Your task to perform on an android device: open app "Pinterest" (install if not already installed) and go to login screen Image 0: 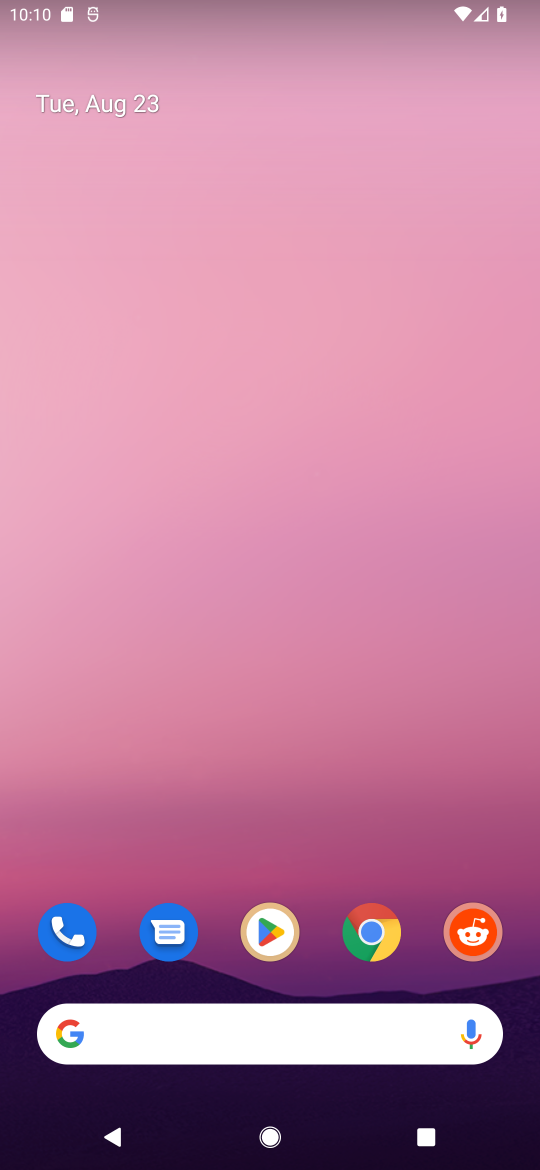
Step 0: click (260, 934)
Your task to perform on an android device: open app "Pinterest" (install if not already installed) and go to login screen Image 1: 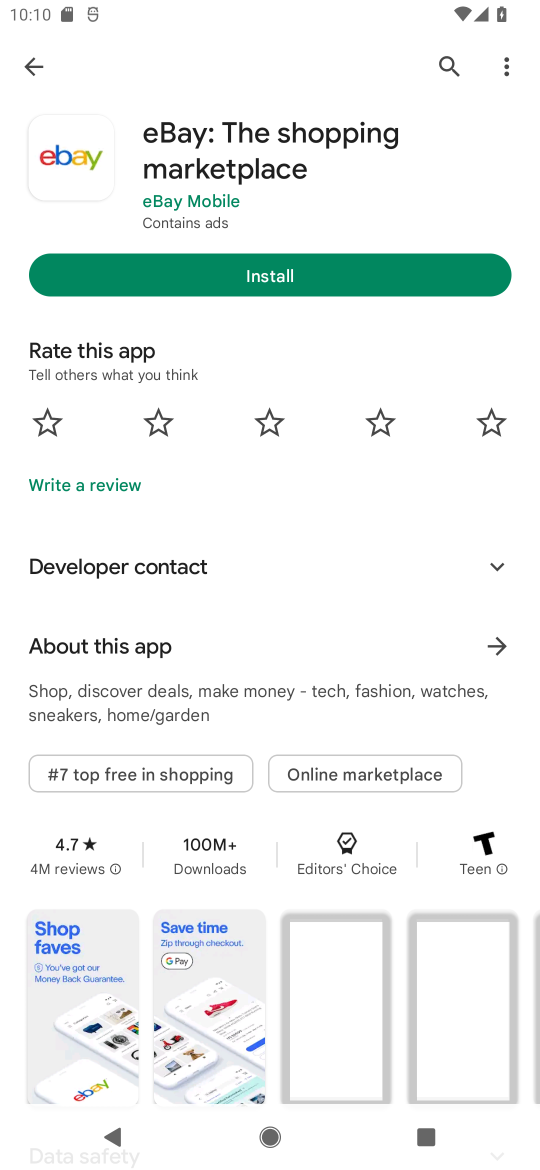
Step 1: click (433, 66)
Your task to perform on an android device: open app "Pinterest" (install if not already installed) and go to login screen Image 2: 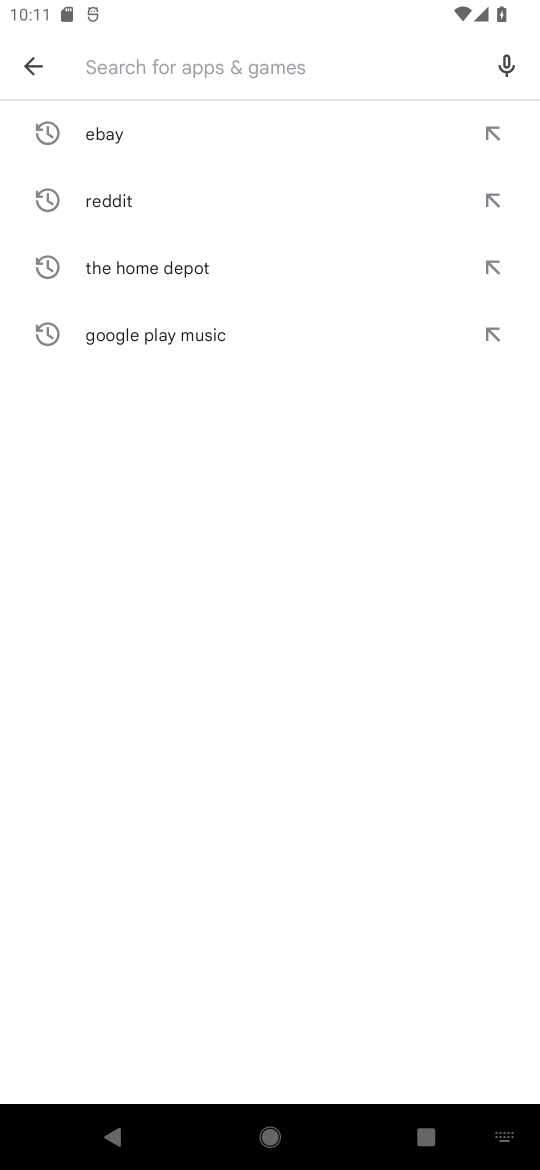
Step 2: click (173, 50)
Your task to perform on an android device: open app "Pinterest" (install if not already installed) and go to login screen Image 3: 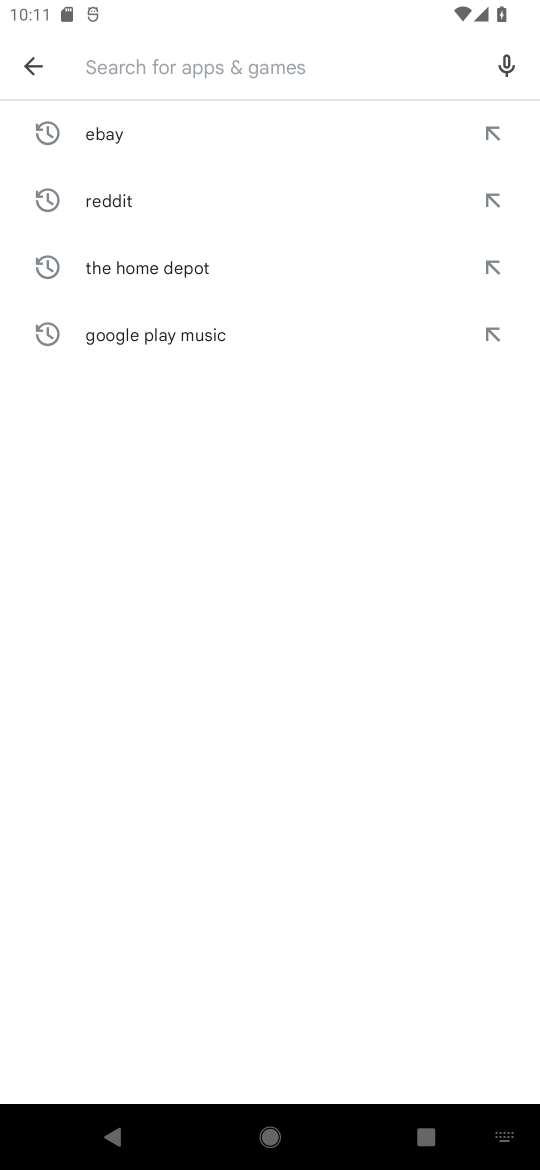
Step 3: type "Pinterest"
Your task to perform on an android device: open app "Pinterest" (install if not already installed) and go to login screen Image 4: 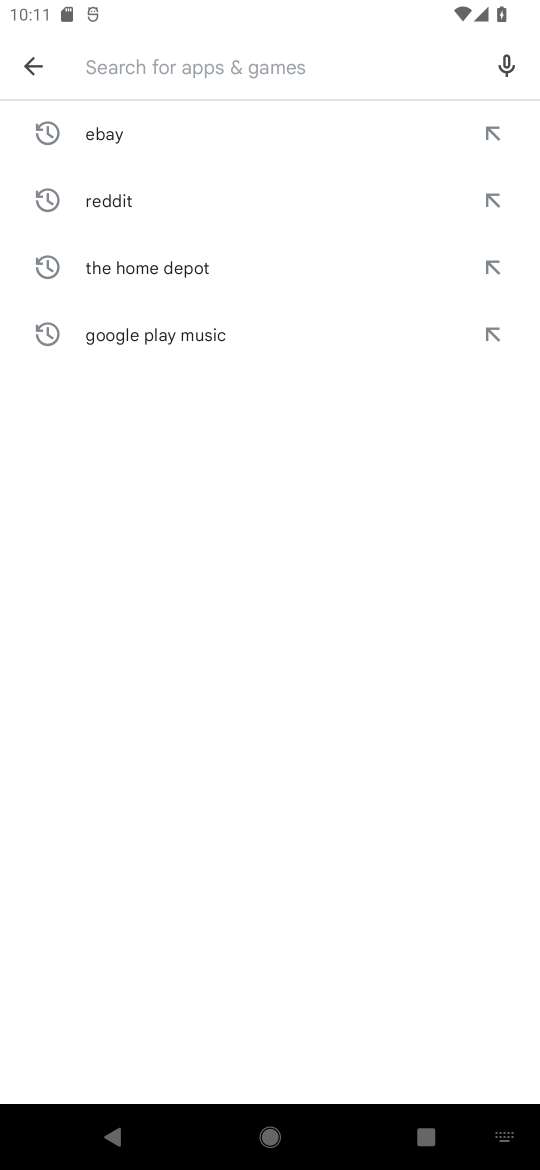
Step 4: click (295, 758)
Your task to perform on an android device: open app "Pinterest" (install if not already installed) and go to login screen Image 5: 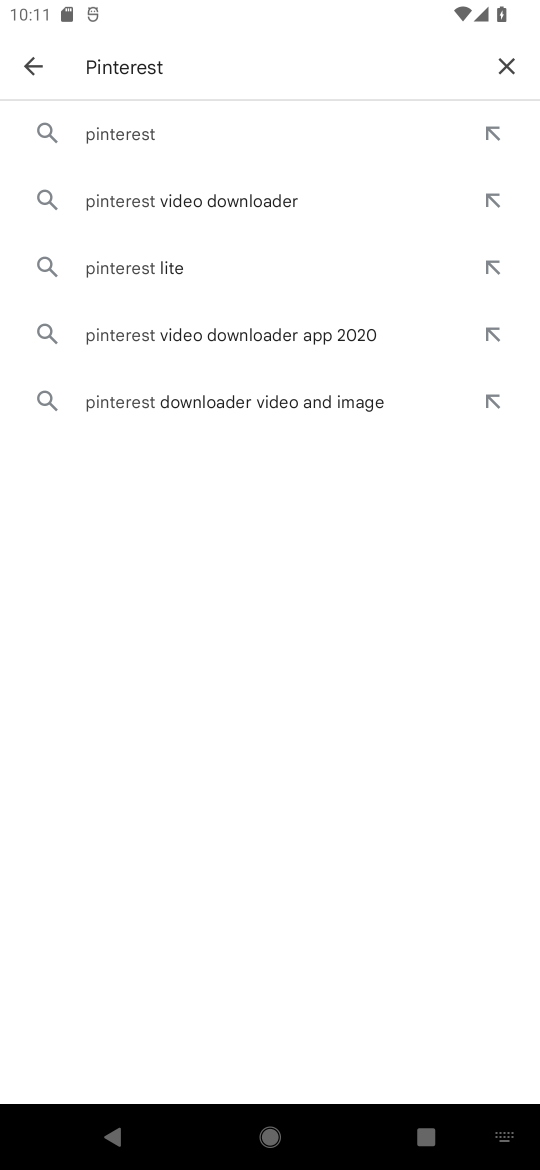
Step 5: click (137, 121)
Your task to perform on an android device: open app "Pinterest" (install if not already installed) and go to login screen Image 6: 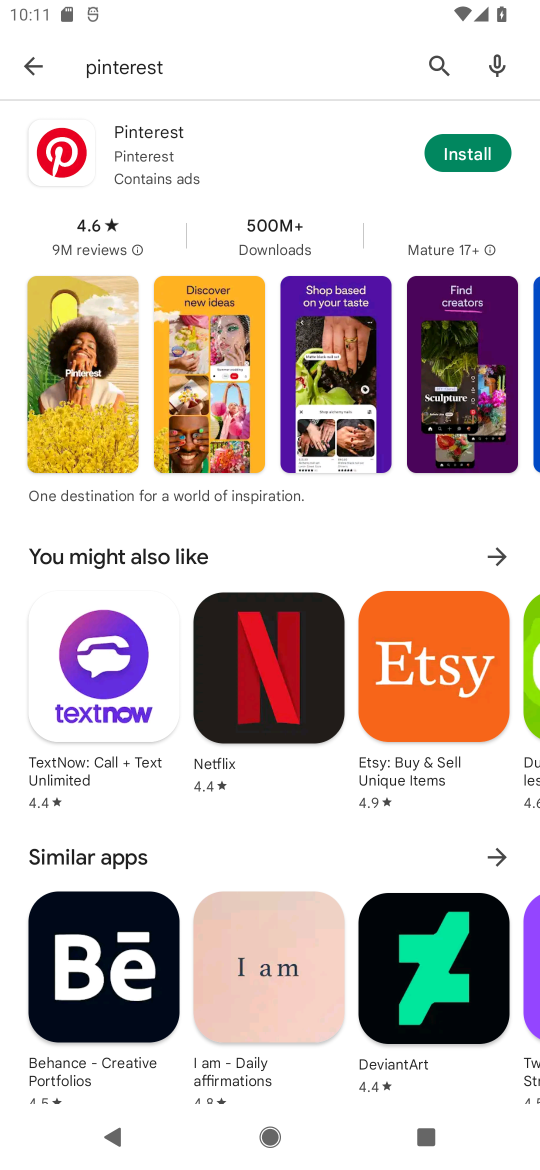
Step 6: click (468, 174)
Your task to perform on an android device: open app "Pinterest" (install if not already installed) and go to login screen Image 7: 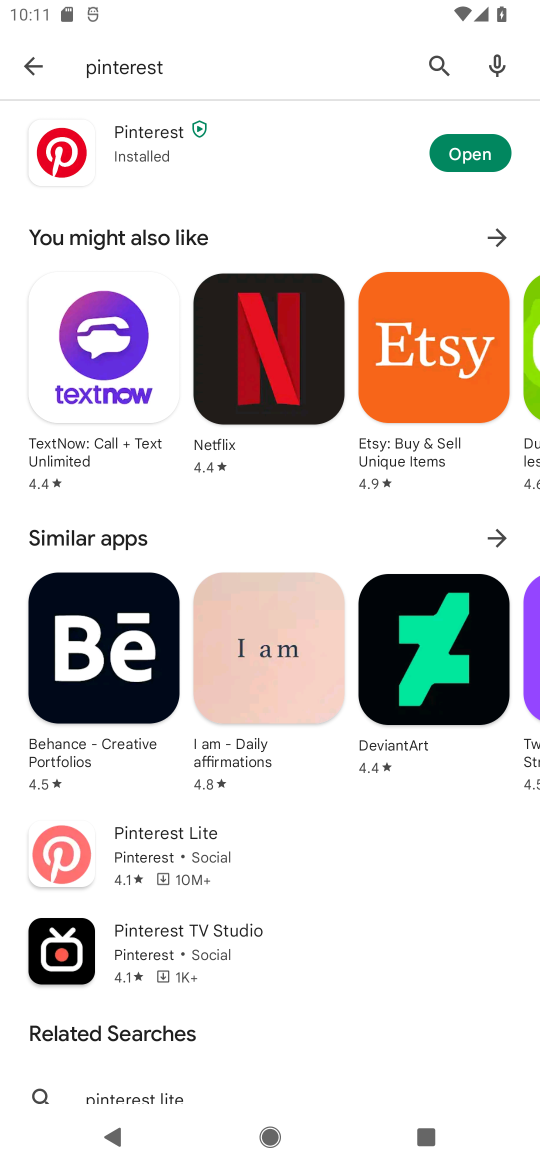
Step 7: click (452, 160)
Your task to perform on an android device: open app "Pinterest" (install if not already installed) and go to login screen Image 8: 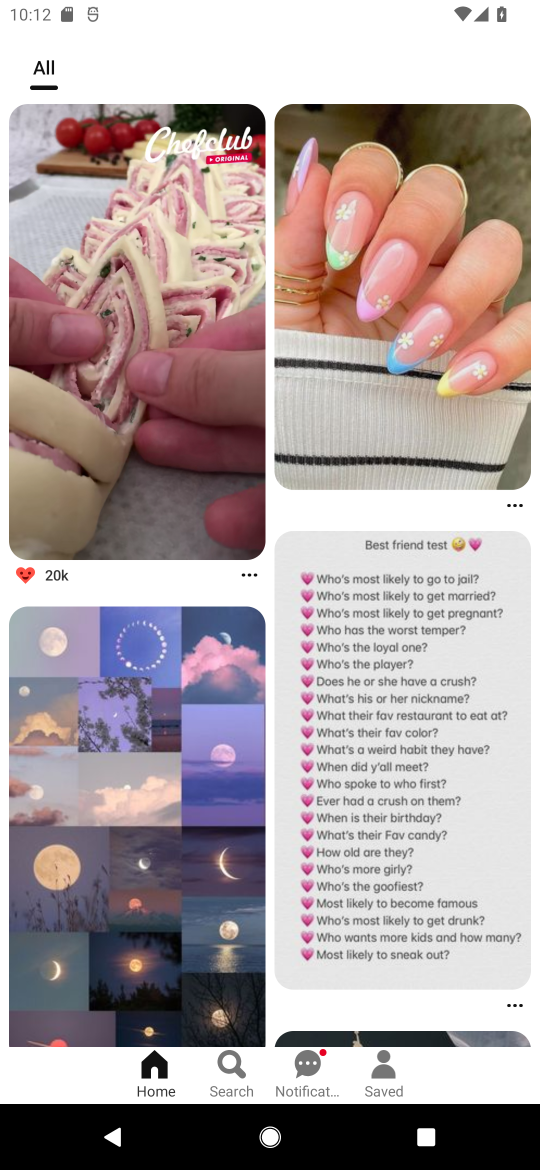
Step 8: click (383, 1068)
Your task to perform on an android device: open app "Pinterest" (install if not already installed) and go to login screen Image 9: 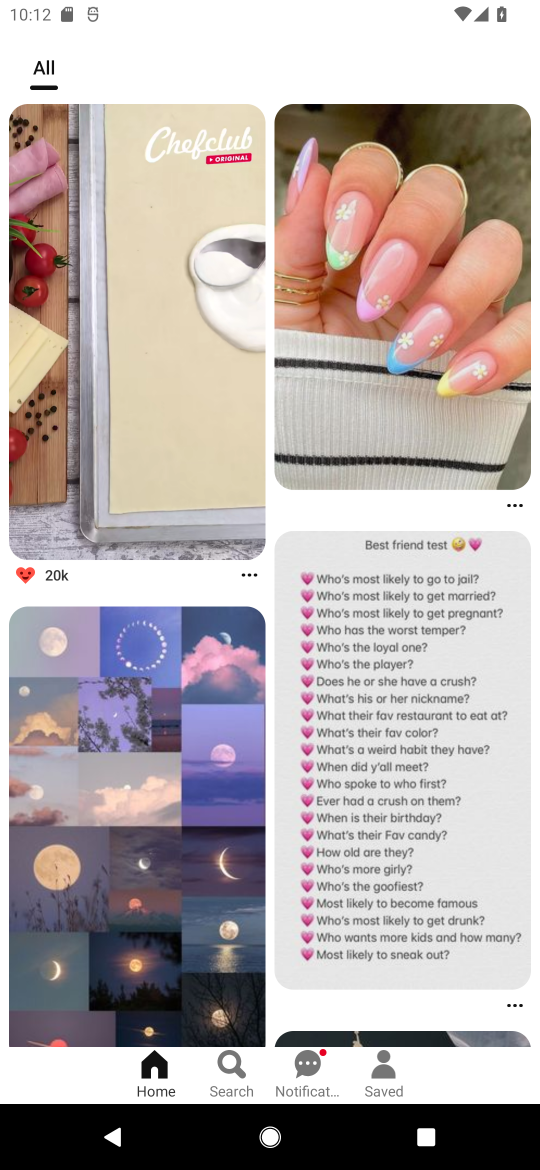
Step 9: task complete